Your task to perform on an android device: Do I have any events tomorrow? Image 0: 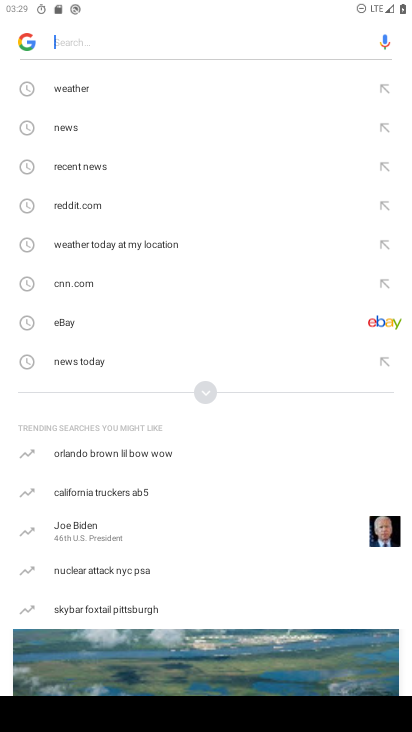
Step 0: press home button
Your task to perform on an android device: Do I have any events tomorrow? Image 1: 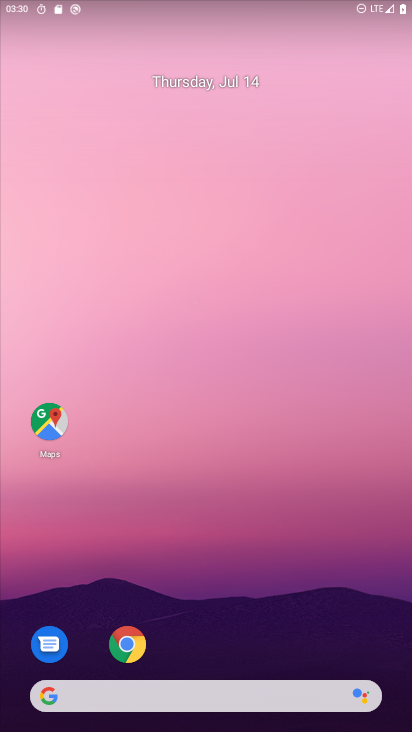
Step 1: drag from (274, 648) to (253, 38)
Your task to perform on an android device: Do I have any events tomorrow? Image 2: 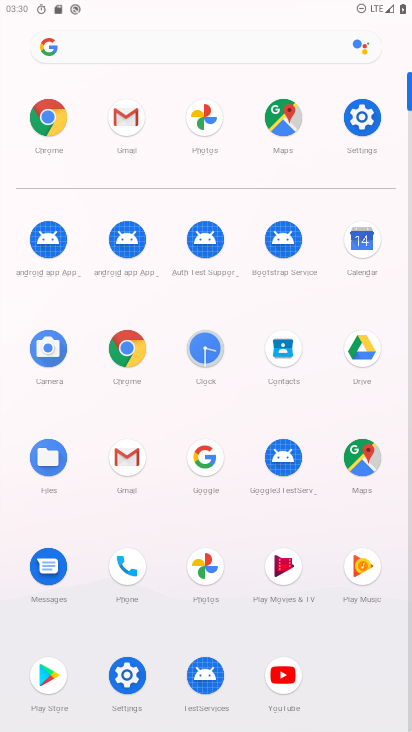
Step 2: click (359, 250)
Your task to perform on an android device: Do I have any events tomorrow? Image 3: 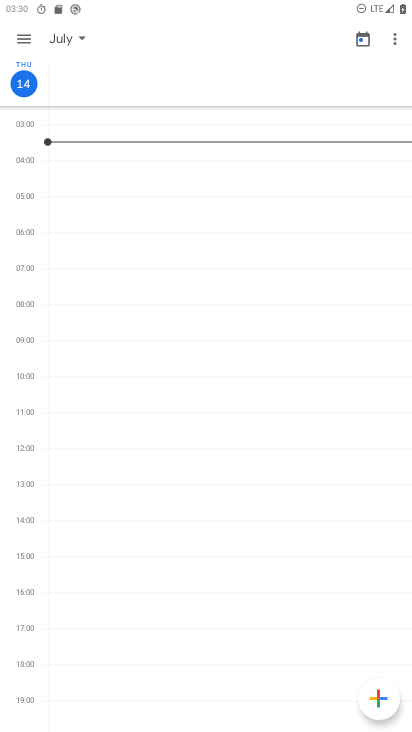
Step 3: click (68, 37)
Your task to perform on an android device: Do I have any events tomorrow? Image 4: 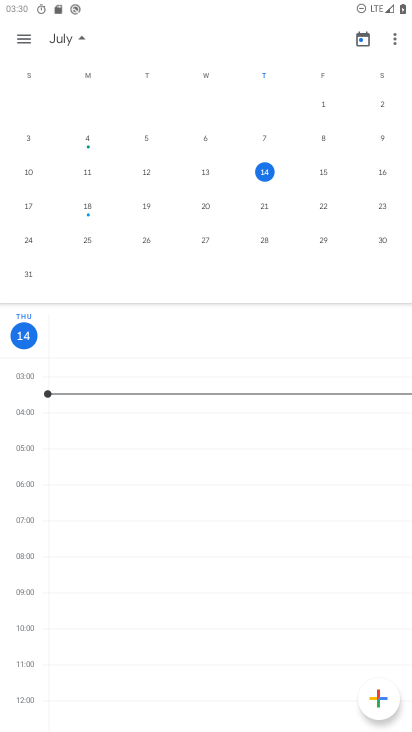
Step 4: click (322, 171)
Your task to perform on an android device: Do I have any events tomorrow? Image 5: 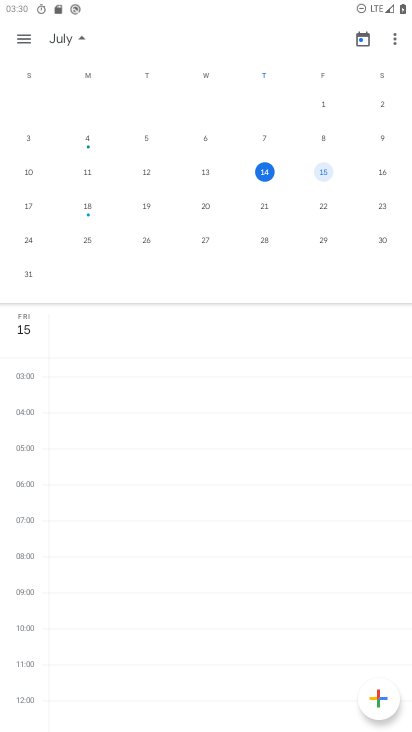
Step 5: click (332, 162)
Your task to perform on an android device: Do I have any events tomorrow? Image 6: 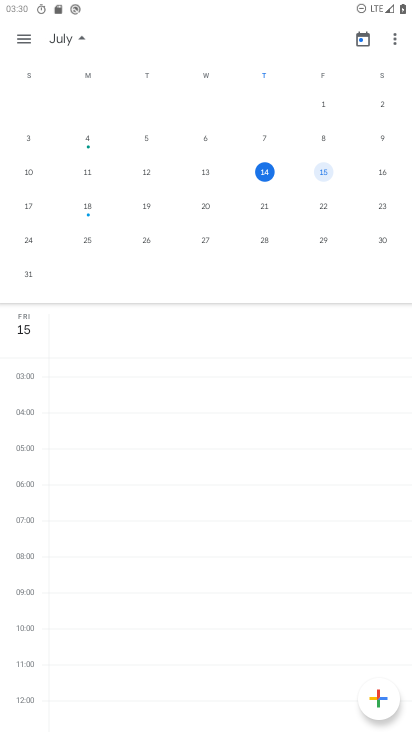
Step 6: click (326, 164)
Your task to perform on an android device: Do I have any events tomorrow? Image 7: 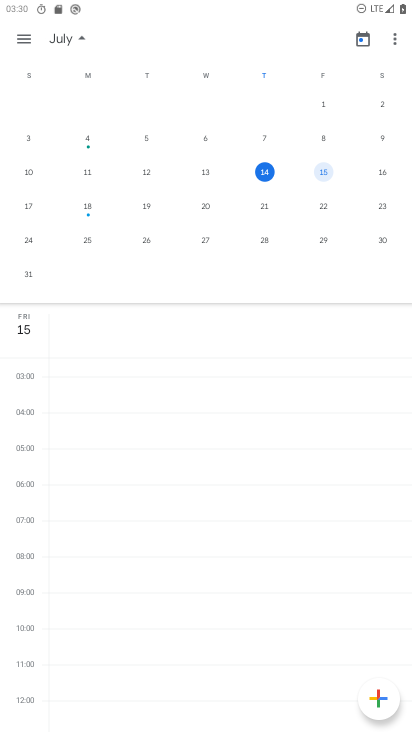
Step 7: click (326, 164)
Your task to perform on an android device: Do I have any events tomorrow? Image 8: 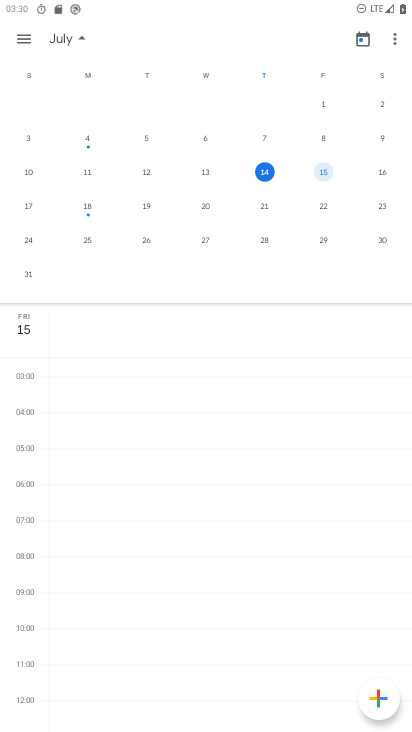
Step 8: task complete